Your task to perform on an android device: turn notification dots off Image 0: 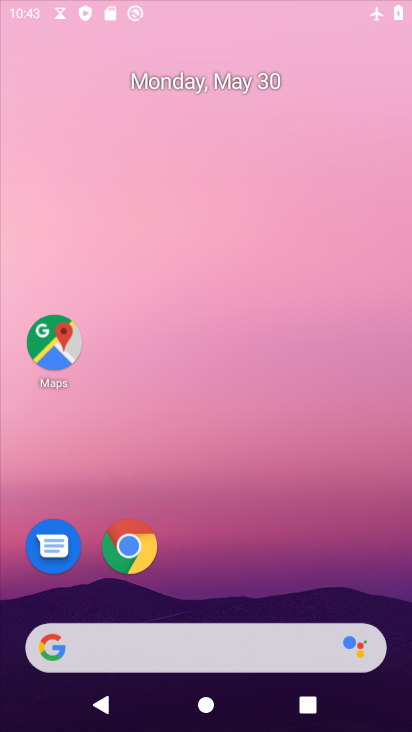
Step 0: press home button
Your task to perform on an android device: turn notification dots off Image 1: 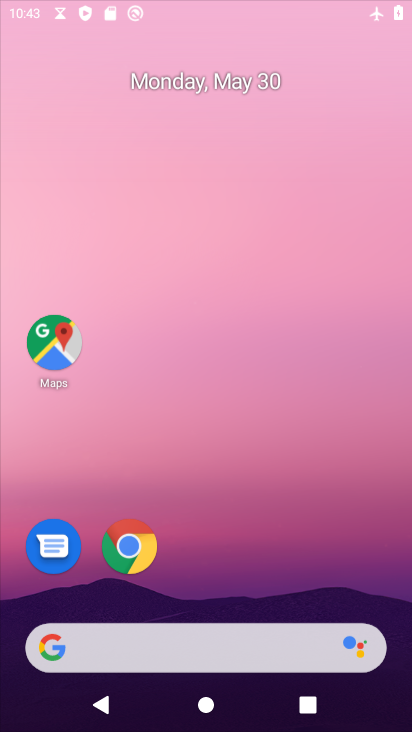
Step 1: click (130, 541)
Your task to perform on an android device: turn notification dots off Image 2: 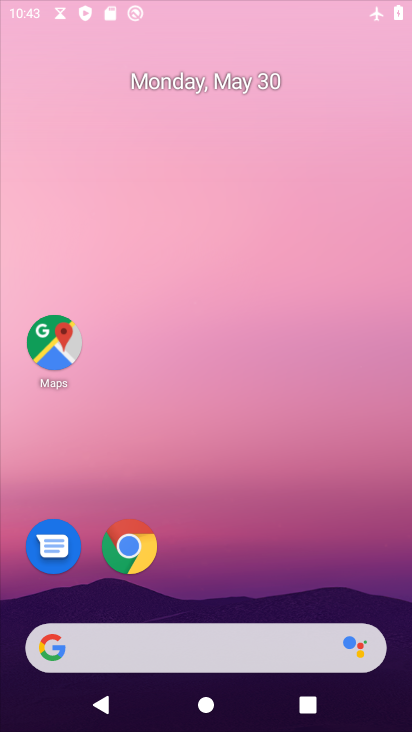
Step 2: click (126, 538)
Your task to perform on an android device: turn notification dots off Image 3: 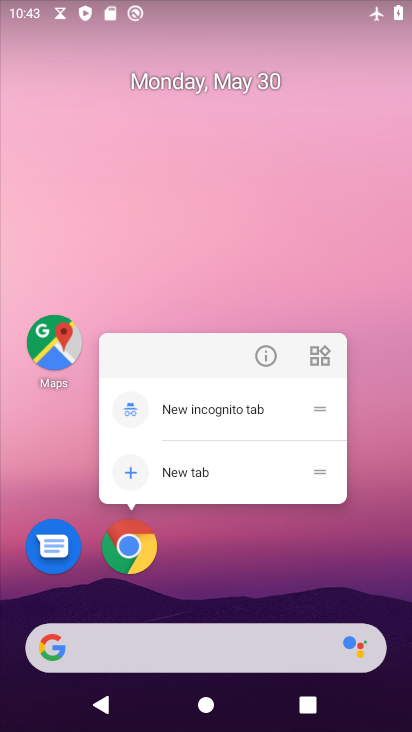
Step 3: drag from (267, 103) to (267, 23)
Your task to perform on an android device: turn notification dots off Image 4: 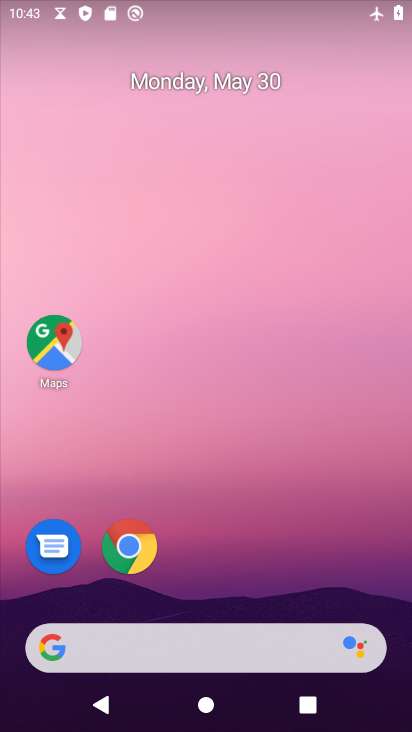
Step 4: click (310, 63)
Your task to perform on an android device: turn notification dots off Image 5: 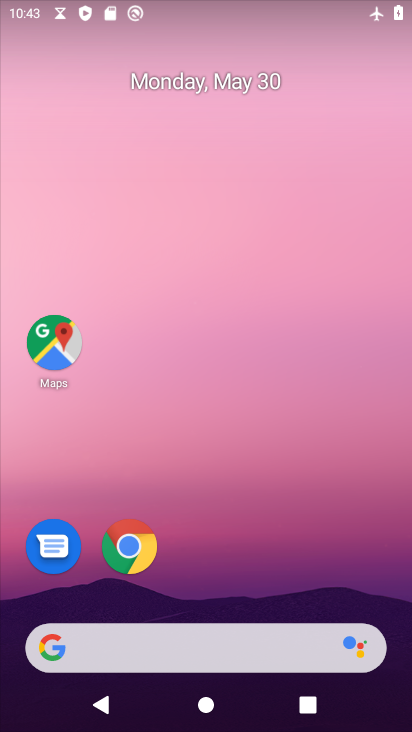
Step 5: drag from (235, 597) to (303, 57)
Your task to perform on an android device: turn notification dots off Image 6: 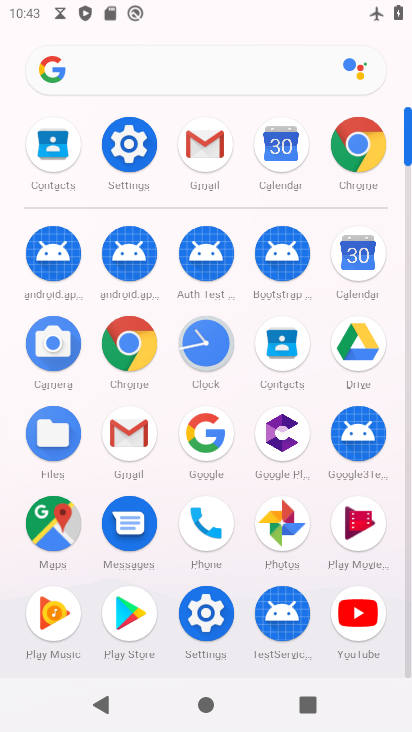
Step 6: click (130, 141)
Your task to perform on an android device: turn notification dots off Image 7: 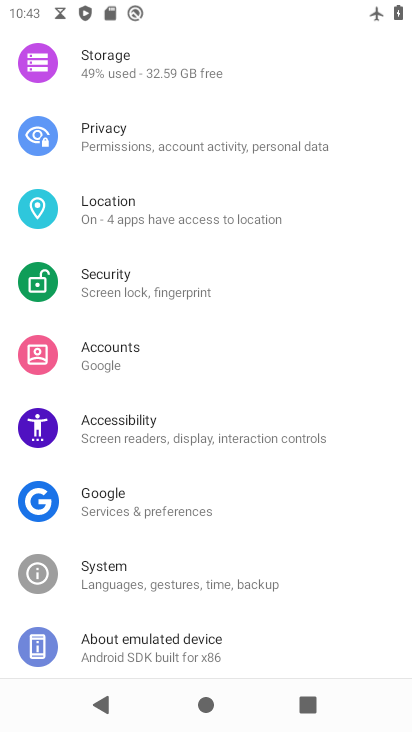
Step 7: drag from (160, 117) to (184, 666)
Your task to perform on an android device: turn notification dots off Image 8: 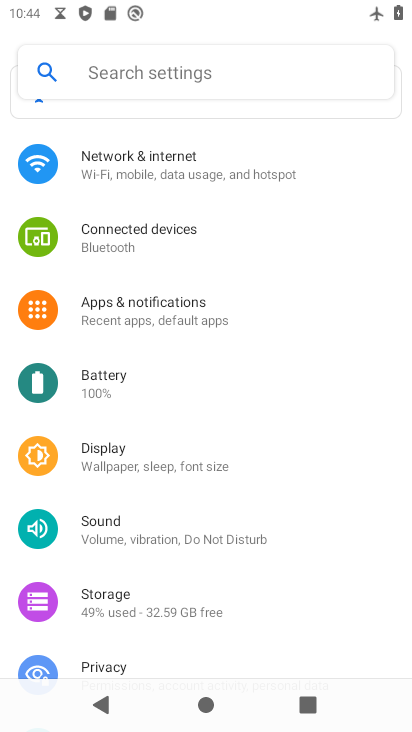
Step 8: click (217, 302)
Your task to perform on an android device: turn notification dots off Image 9: 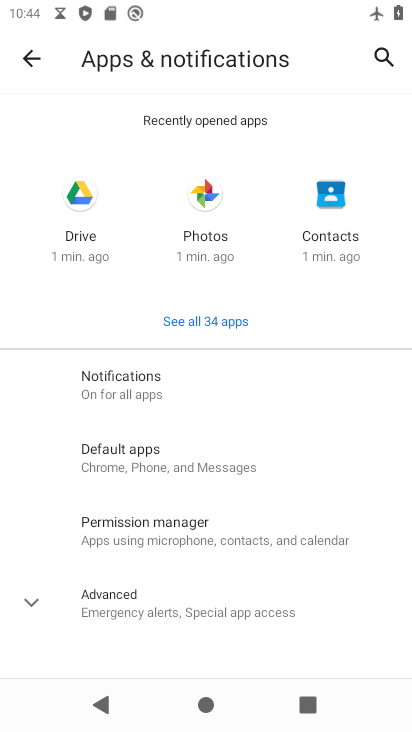
Step 9: click (177, 384)
Your task to perform on an android device: turn notification dots off Image 10: 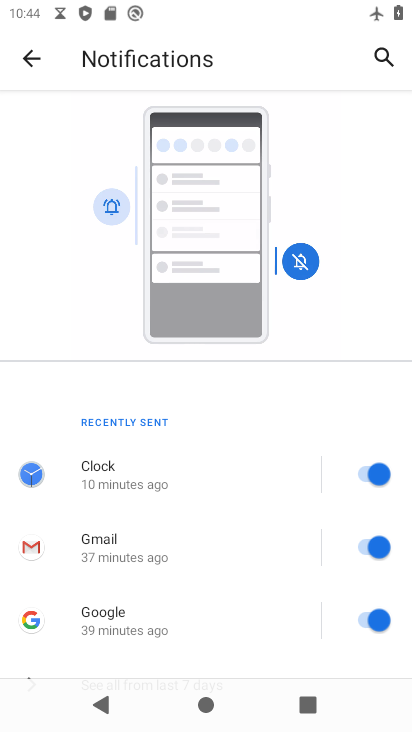
Step 10: drag from (246, 429) to (263, 99)
Your task to perform on an android device: turn notification dots off Image 11: 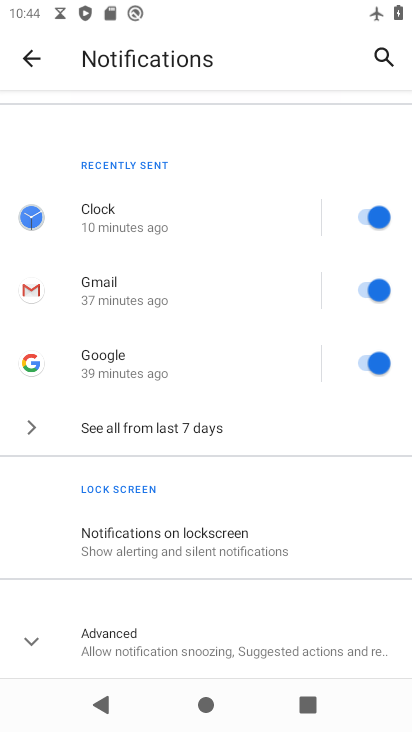
Step 11: click (160, 634)
Your task to perform on an android device: turn notification dots off Image 12: 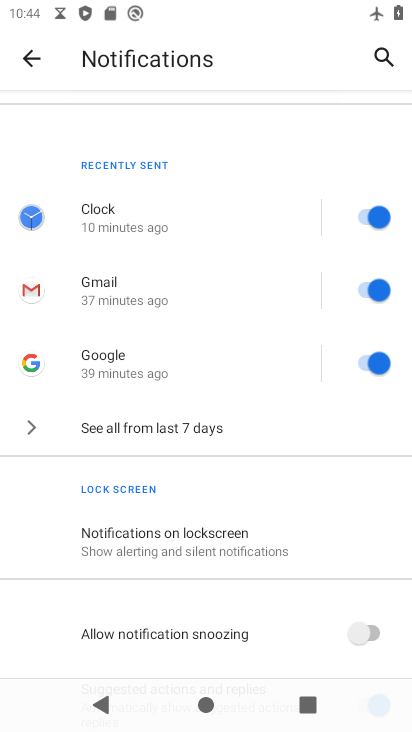
Step 12: task complete